Your task to perform on an android device: What's the weather going to be tomorrow? Image 0: 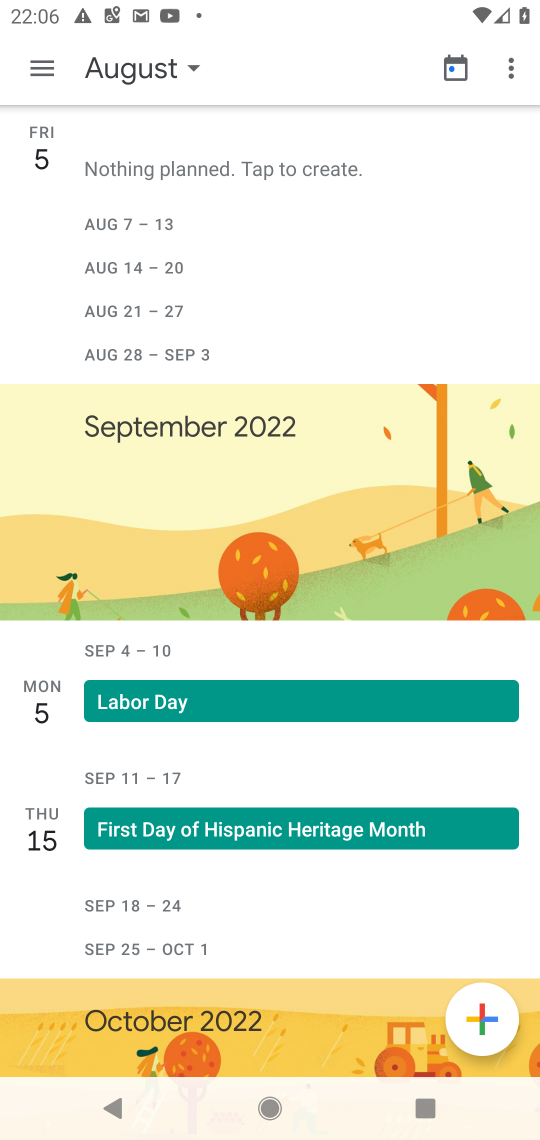
Step 0: press home button
Your task to perform on an android device: What's the weather going to be tomorrow? Image 1: 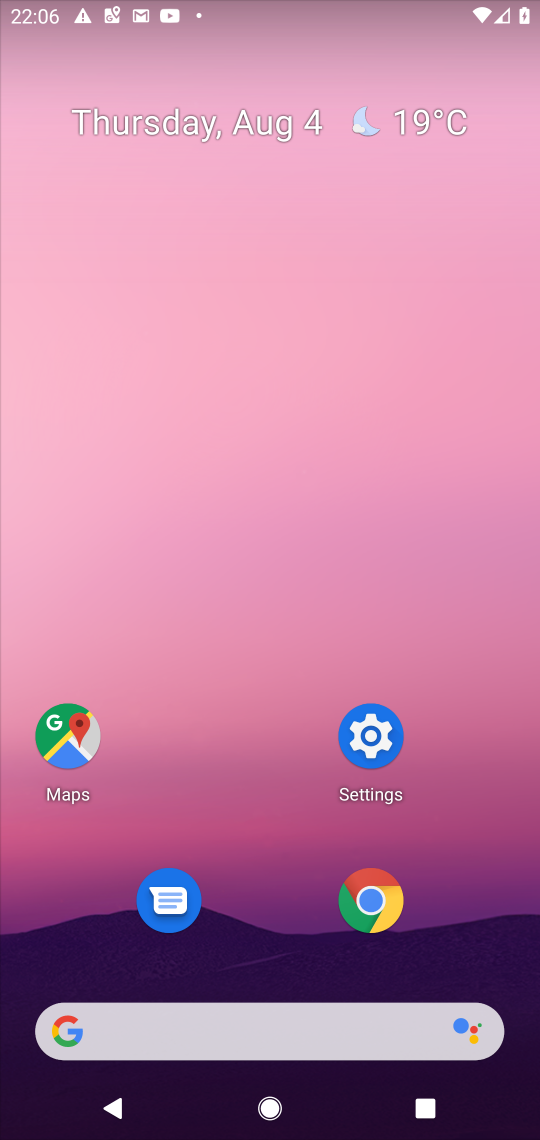
Step 1: click (156, 1029)
Your task to perform on an android device: What's the weather going to be tomorrow? Image 2: 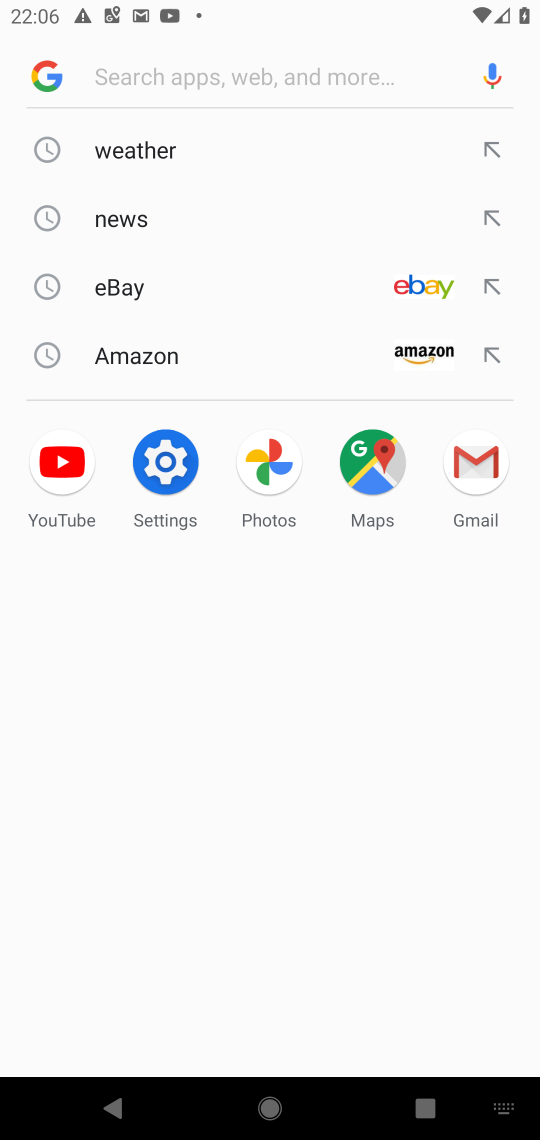
Step 2: click (161, 148)
Your task to perform on an android device: What's the weather going to be tomorrow? Image 3: 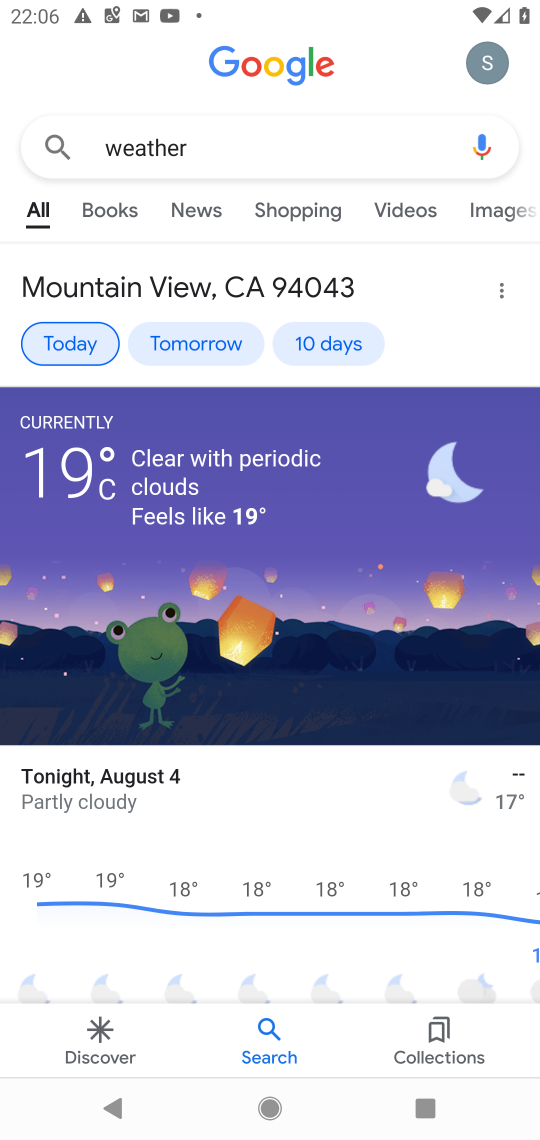
Step 3: click (180, 349)
Your task to perform on an android device: What's the weather going to be tomorrow? Image 4: 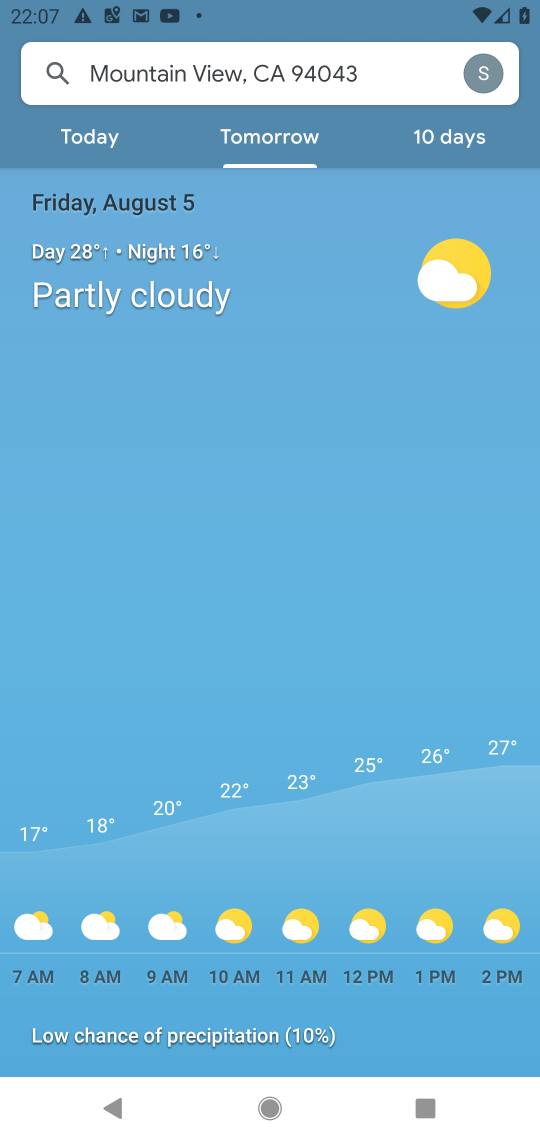
Step 4: task complete